Your task to perform on an android device: Is it going to rain this weekend? Image 0: 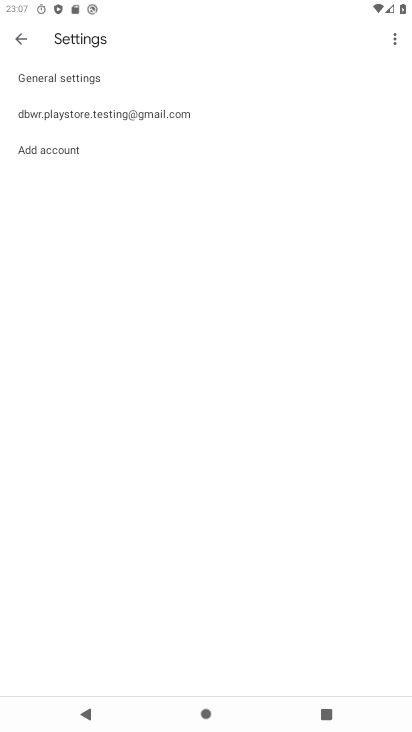
Step 0: press home button
Your task to perform on an android device: Is it going to rain this weekend? Image 1: 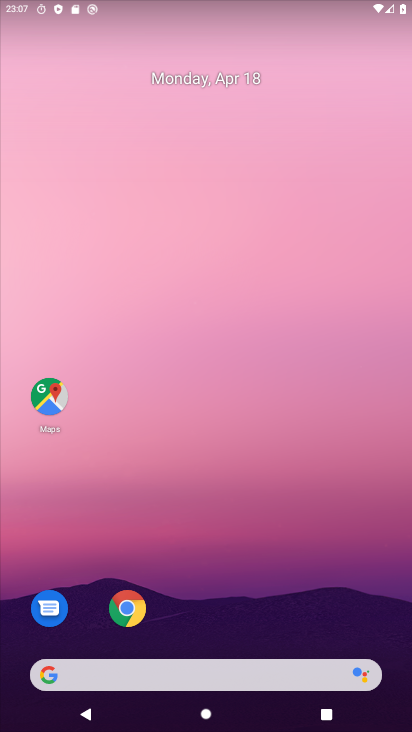
Step 1: drag from (214, 601) to (213, 124)
Your task to perform on an android device: Is it going to rain this weekend? Image 2: 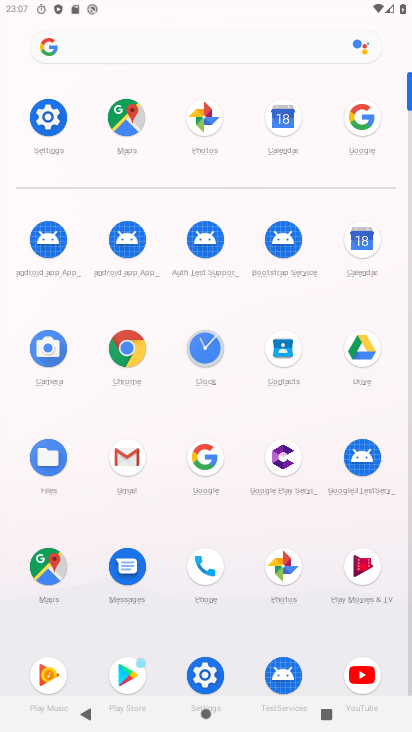
Step 2: click (208, 455)
Your task to perform on an android device: Is it going to rain this weekend? Image 3: 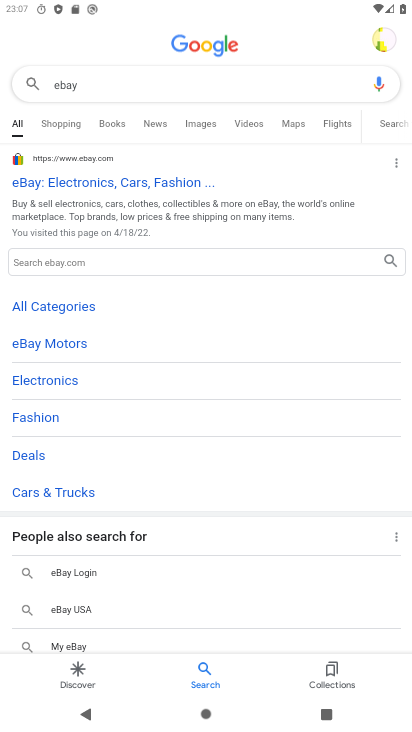
Step 3: click (151, 78)
Your task to perform on an android device: Is it going to rain this weekend? Image 4: 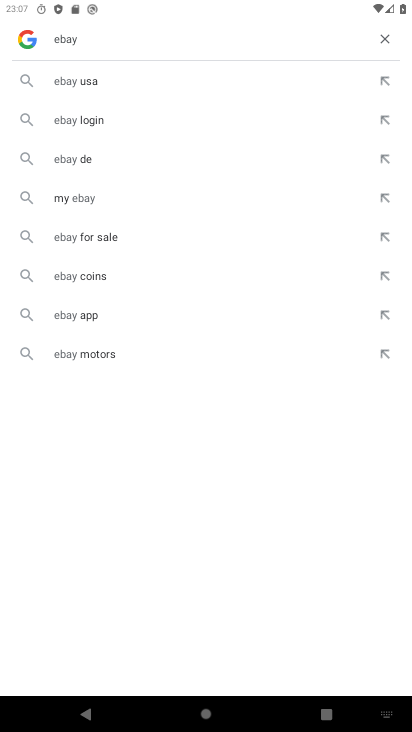
Step 4: click (382, 40)
Your task to perform on an android device: Is it going to rain this weekend? Image 5: 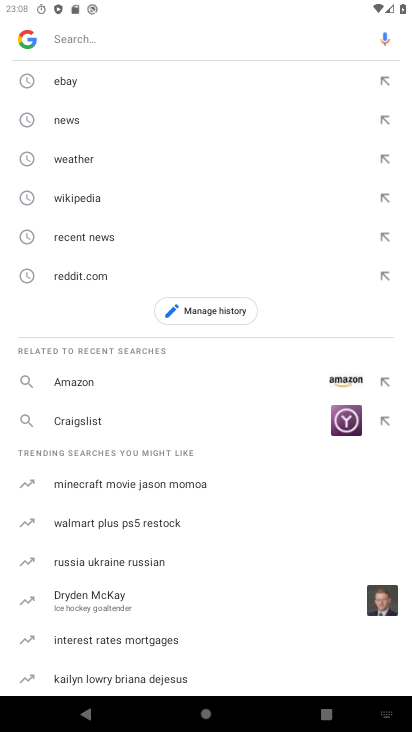
Step 5: type "is it going to rain this weekend"
Your task to perform on an android device: Is it going to rain this weekend? Image 6: 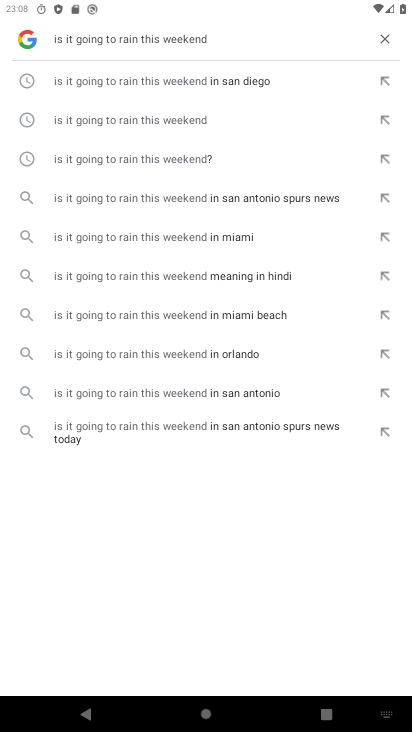
Step 6: click (194, 121)
Your task to perform on an android device: Is it going to rain this weekend? Image 7: 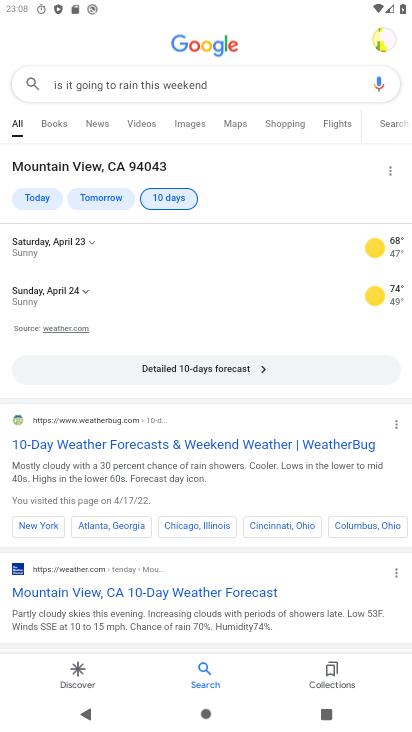
Step 7: task complete